Your task to perform on an android device: open a bookmark in the chrome app Image 0: 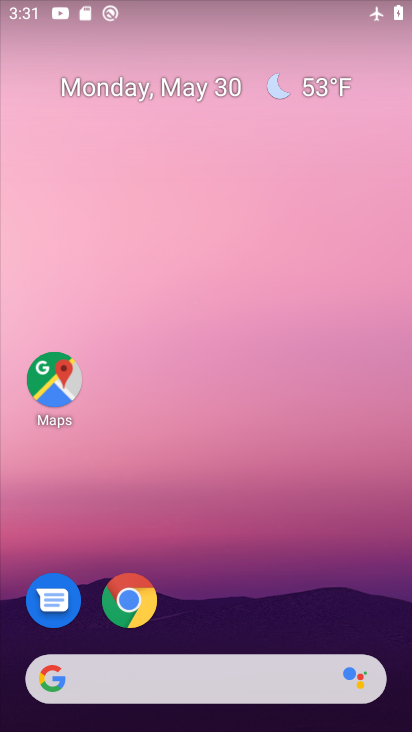
Step 0: drag from (269, 411) to (308, 182)
Your task to perform on an android device: open a bookmark in the chrome app Image 1: 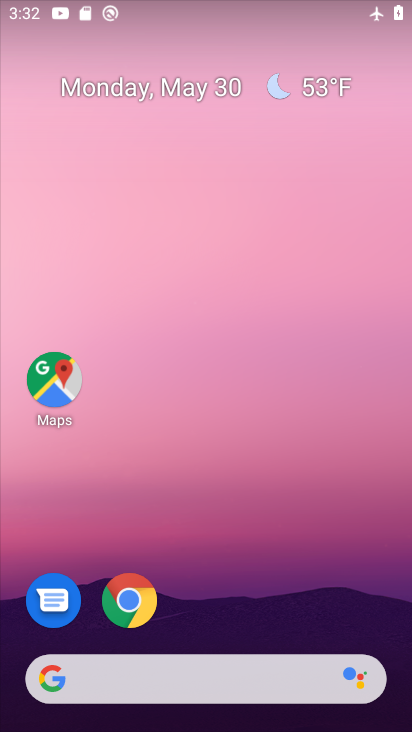
Step 1: drag from (265, 462) to (298, 132)
Your task to perform on an android device: open a bookmark in the chrome app Image 2: 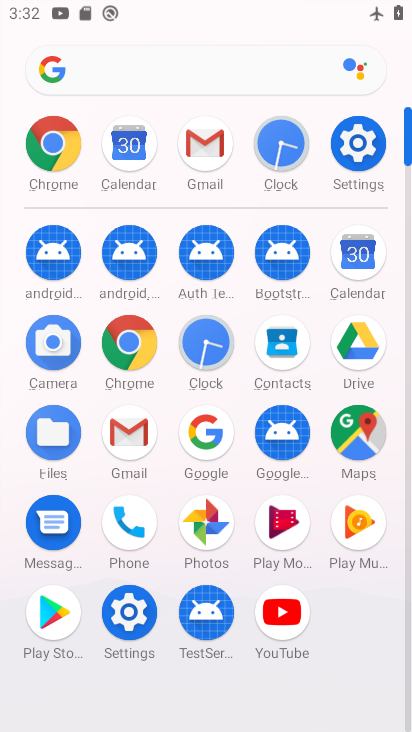
Step 2: click (38, 146)
Your task to perform on an android device: open a bookmark in the chrome app Image 3: 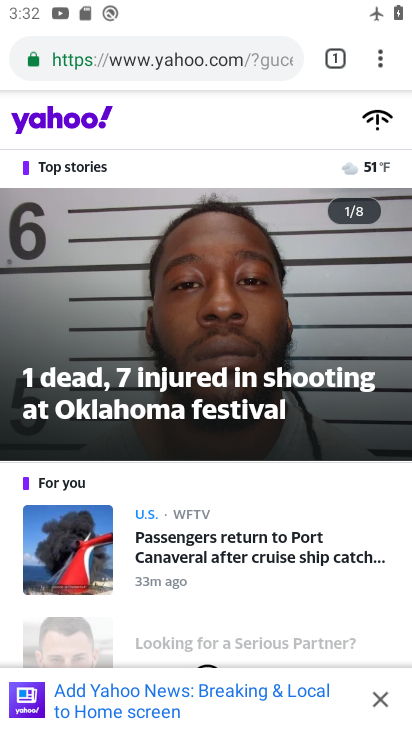
Step 3: task complete